Your task to perform on an android device: When is my next meeting? Image 0: 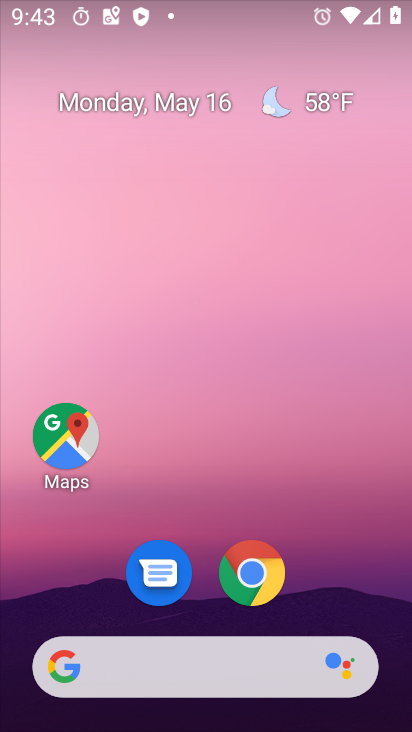
Step 0: drag from (227, 688) to (96, 180)
Your task to perform on an android device: When is my next meeting? Image 1: 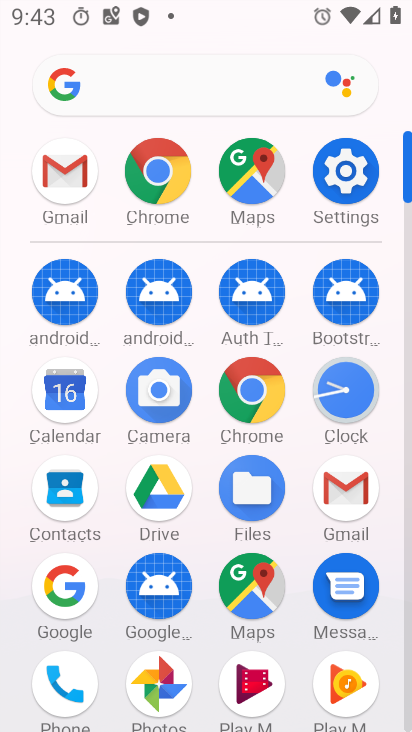
Step 1: click (69, 391)
Your task to perform on an android device: When is my next meeting? Image 2: 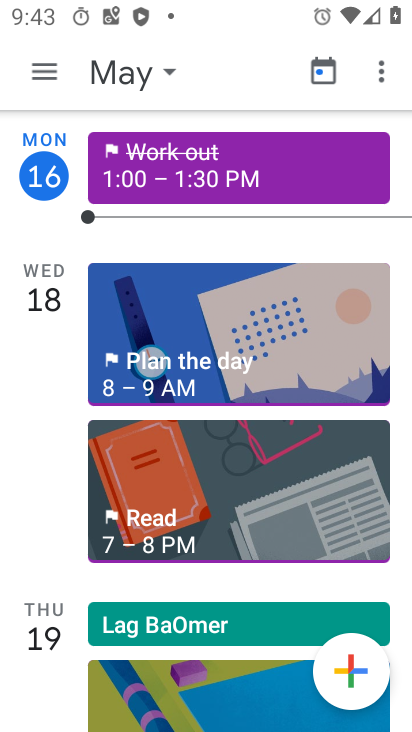
Step 2: click (157, 75)
Your task to perform on an android device: When is my next meeting? Image 3: 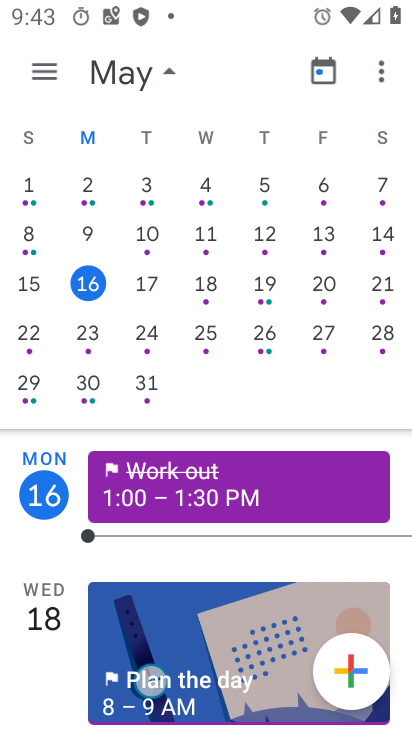
Step 3: task complete